Your task to perform on an android device: Search for Italian restaurants on Maps Image 0: 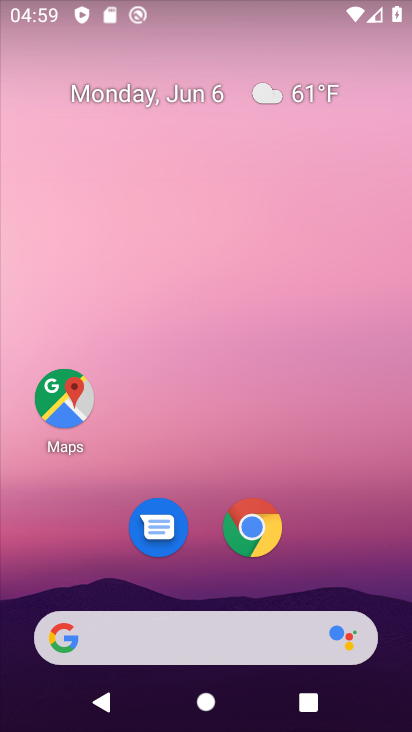
Step 0: click (246, 522)
Your task to perform on an android device: Search for Italian restaurants on Maps Image 1: 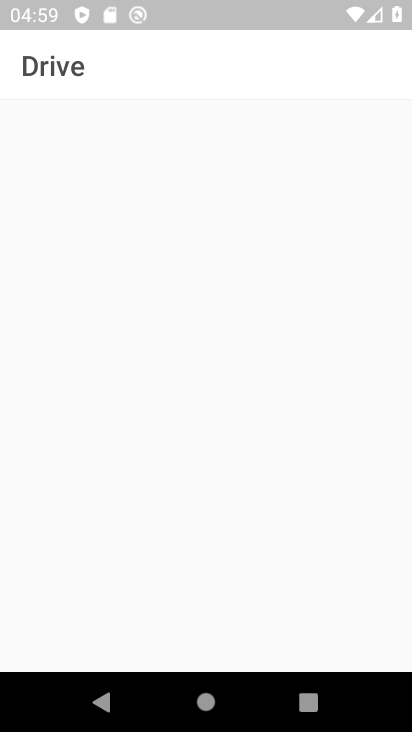
Step 1: press home button
Your task to perform on an android device: Search for Italian restaurants on Maps Image 2: 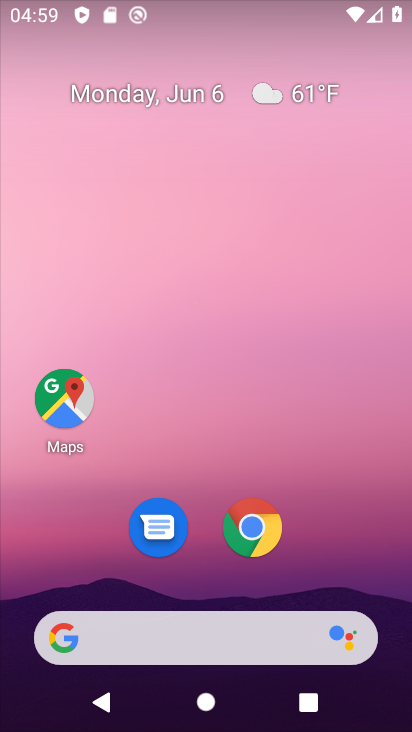
Step 2: click (45, 376)
Your task to perform on an android device: Search for Italian restaurants on Maps Image 3: 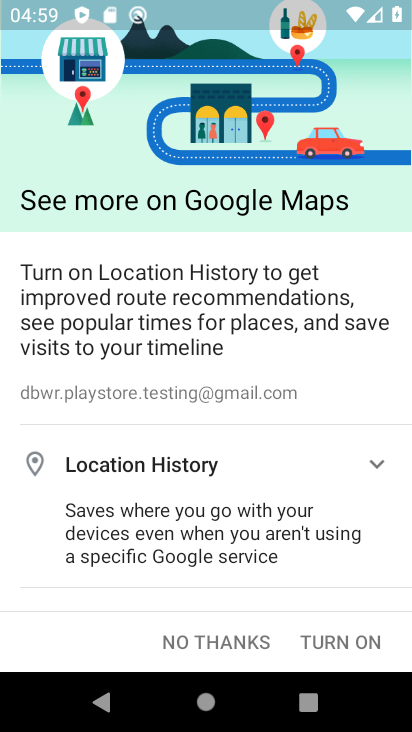
Step 3: click (367, 630)
Your task to perform on an android device: Search for Italian restaurants on Maps Image 4: 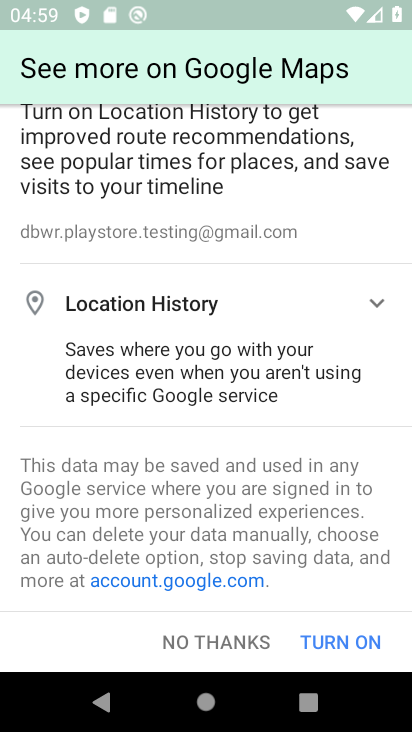
Step 4: click (361, 634)
Your task to perform on an android device: Search for Italian restaurants on Maps Image 5: 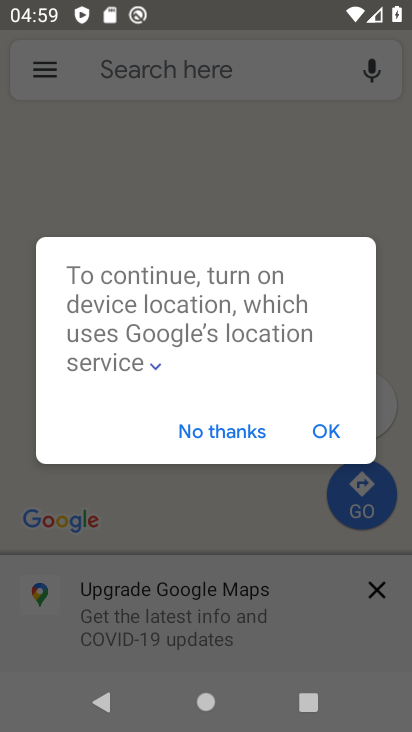
Step 5: click (322, 425)
Your task to perform on an android device: Search for Italian restaurants on Maps Image 6: 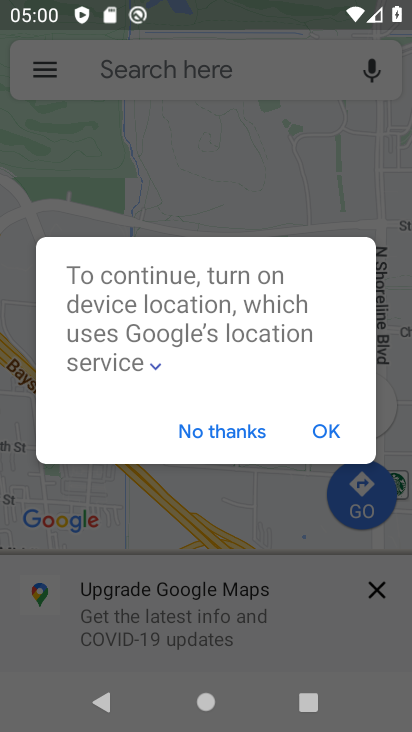
Step 6: click (332, 424)
Your task to perform on an android device: Search for Italian restaurants on Maps Image 7: 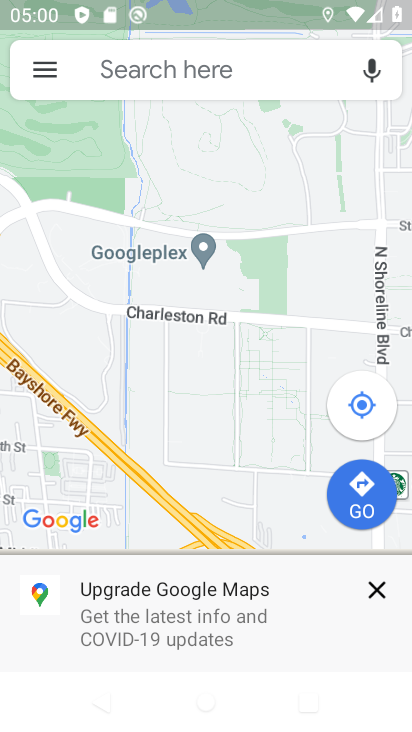
Step 7: click (130, 65)
Your task to perform on an android device: Search for Italian restaurants on Maps Image 8: 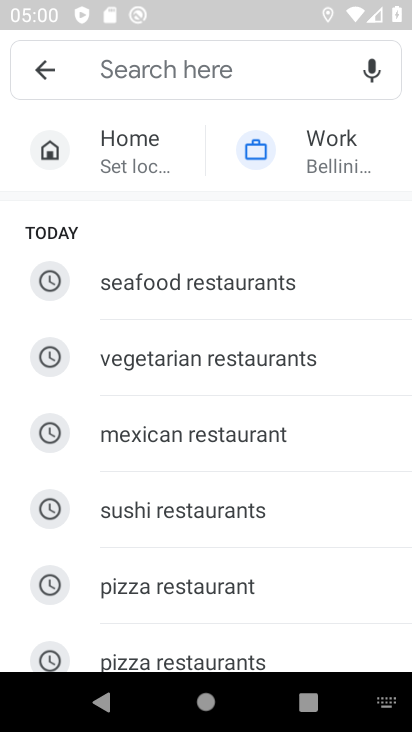
Step 8: type "Italian restaurants"
Your task to perform on an android device: Search for Italian restaurants on Maps Image 9: 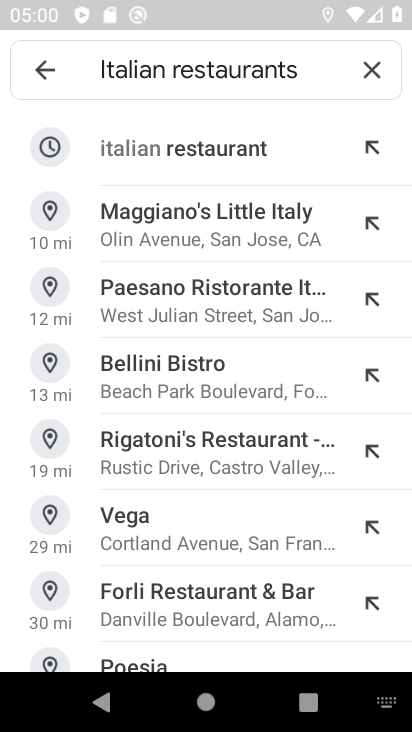
Step 9: click (193, 149)
Your task to perform on an android device: Search for Italian restaurants on Maps Image 10: 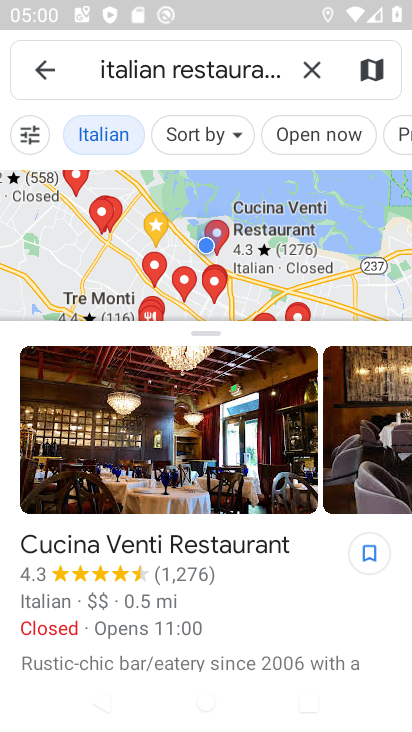
Step 10: task complete